Your task to perform on an android device: Search for hotels in Seattle Image 0: 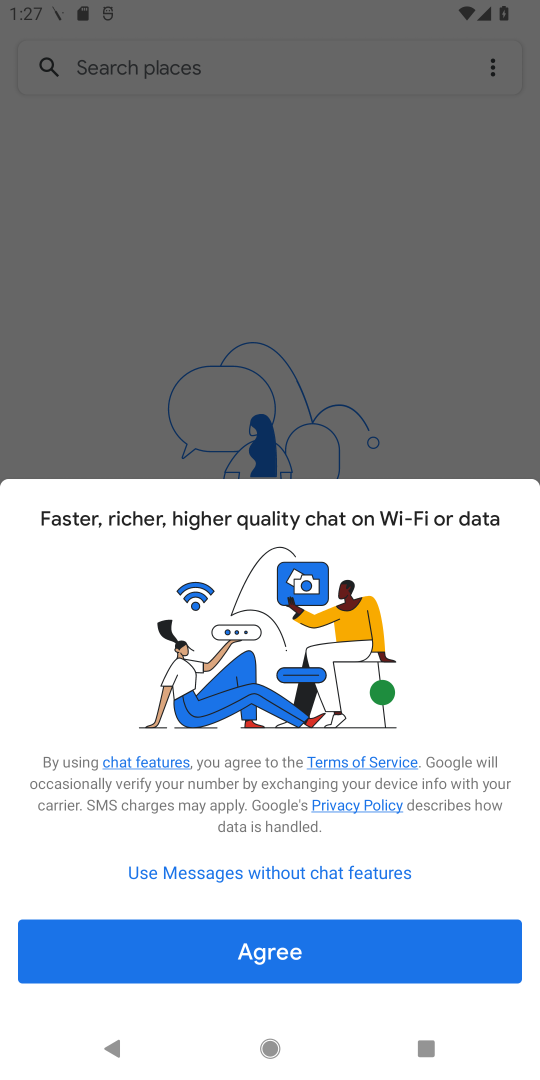
Step 0: press home button
Your task to perform on an android device: Search for hotels in Seattle Image 1: 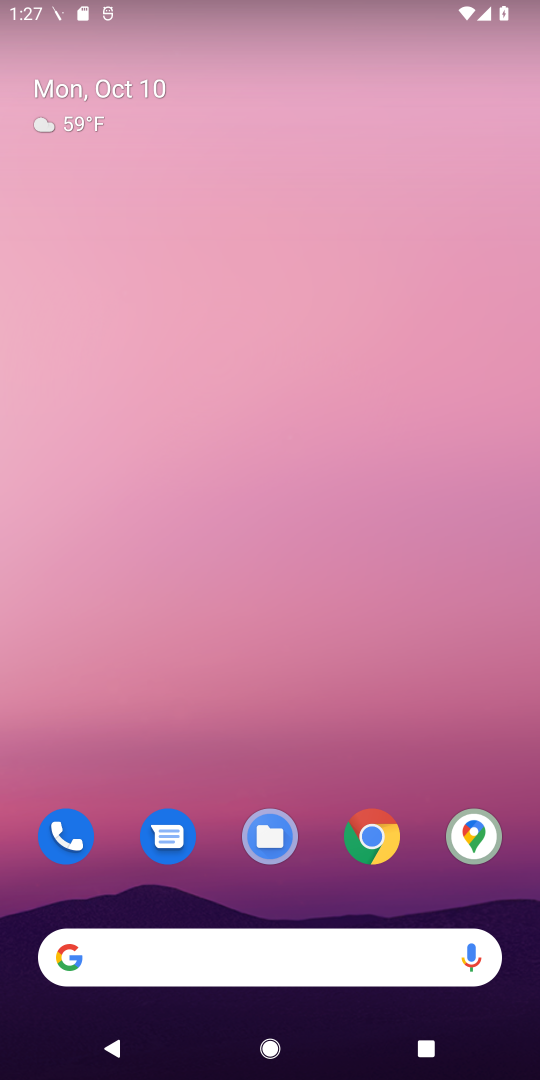
Step 1: click (358, 828)
Your task to perform on an android device: Search for hotels in Seattle Image 2: 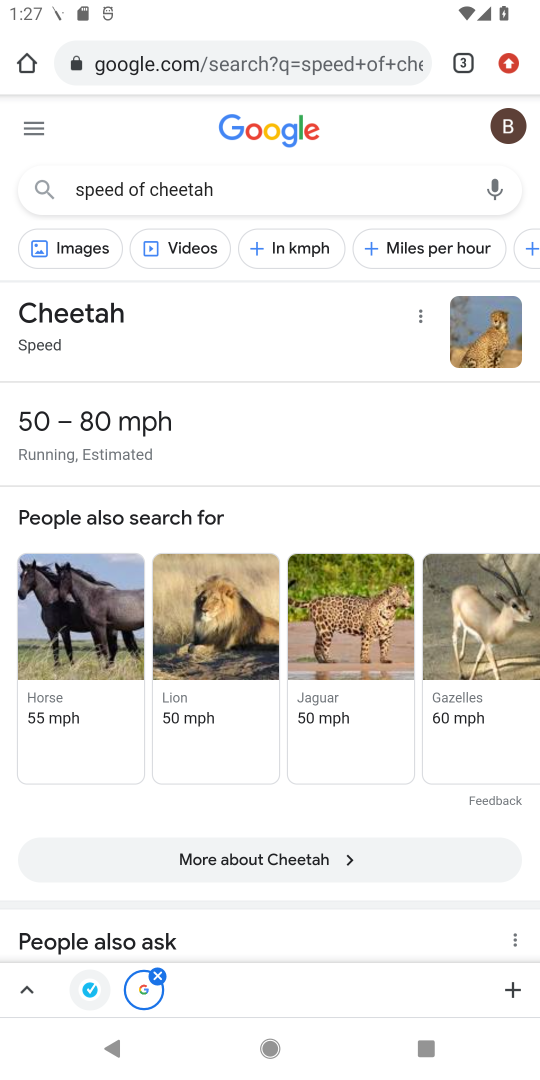
Step 2: click (331, 65)
Your task to perform on an android device: Search for hotels in Seattle Image 3: 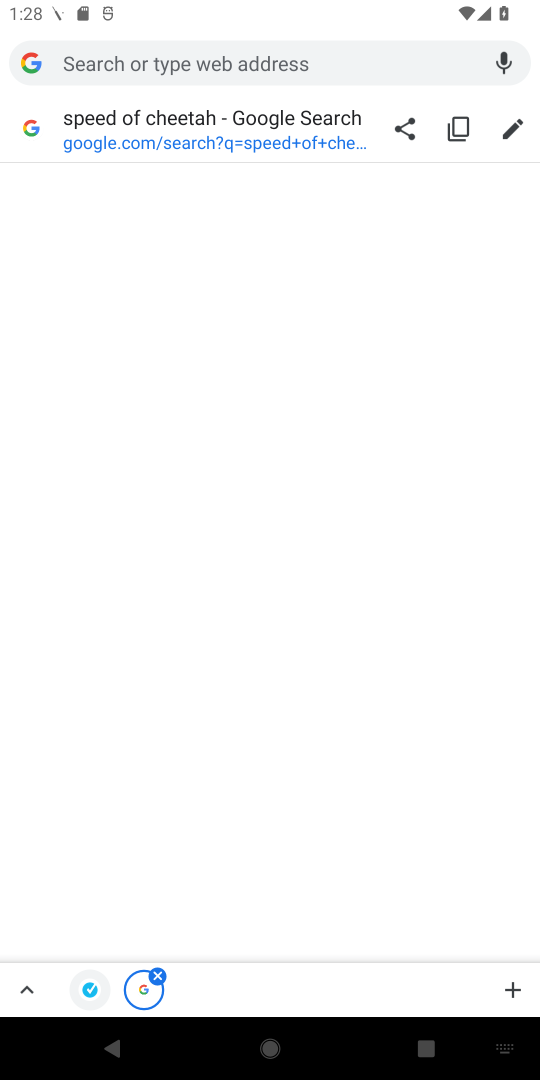
Step 3: type "hotels in seattle"
Your task to perform on an android device: Search for hotels in Seattle Image 4: 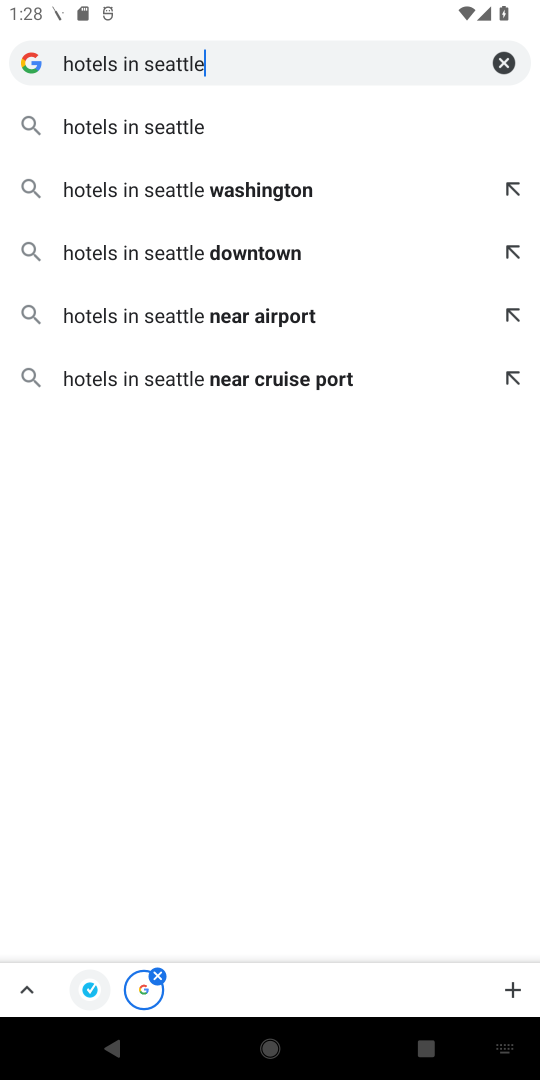
Step 4: click (227, 117)
Your task to perform on an android device: Search for hotels in Seattle Image 5: 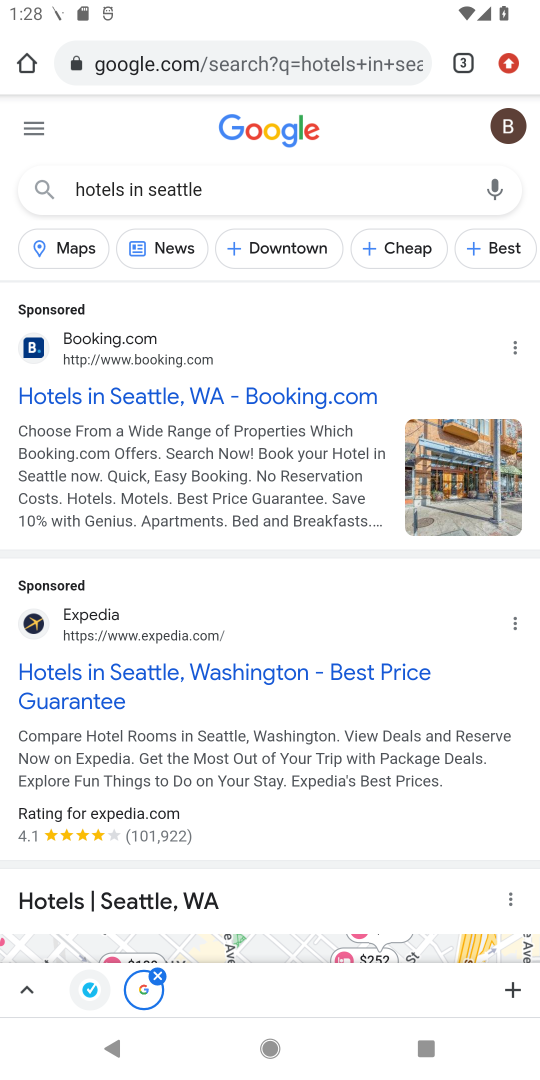
Step 5: click (245, 395)
Your task to perform on an android device: Search for hotels in Seattle Image 6: 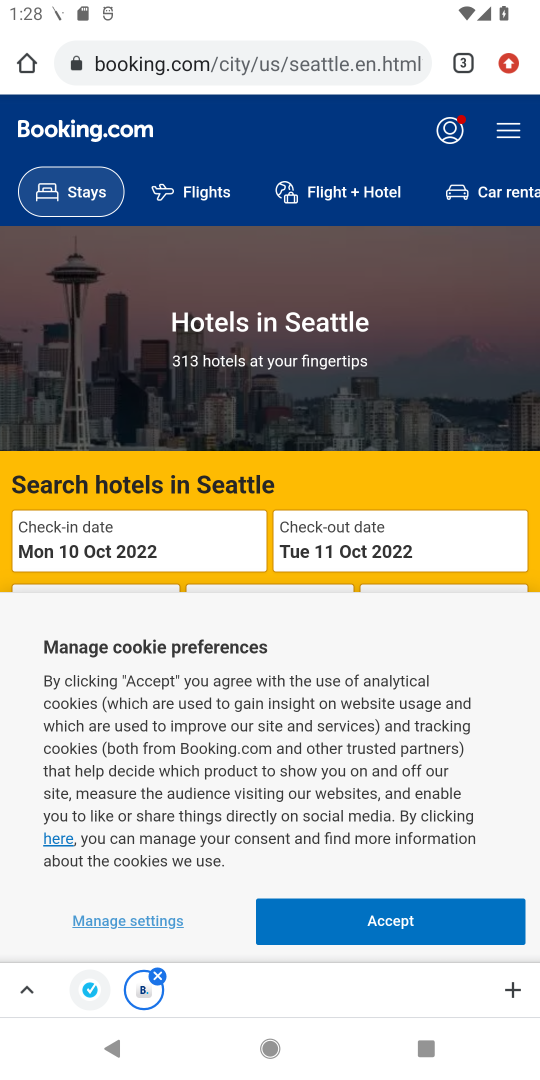
Step 6: drag from (453, 781) to (422, 616)
Your task to perform on an android device: Search for hotels in Seattle Image 7: 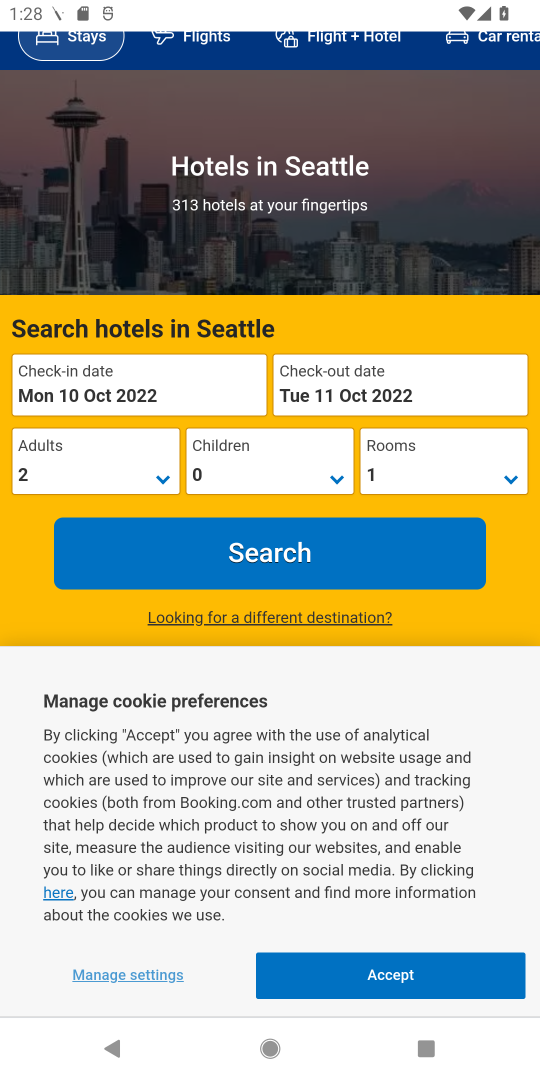
Step 7: click (468, 968)
Your task to perform on an android device: Search for hotels in Seattle Image 8: 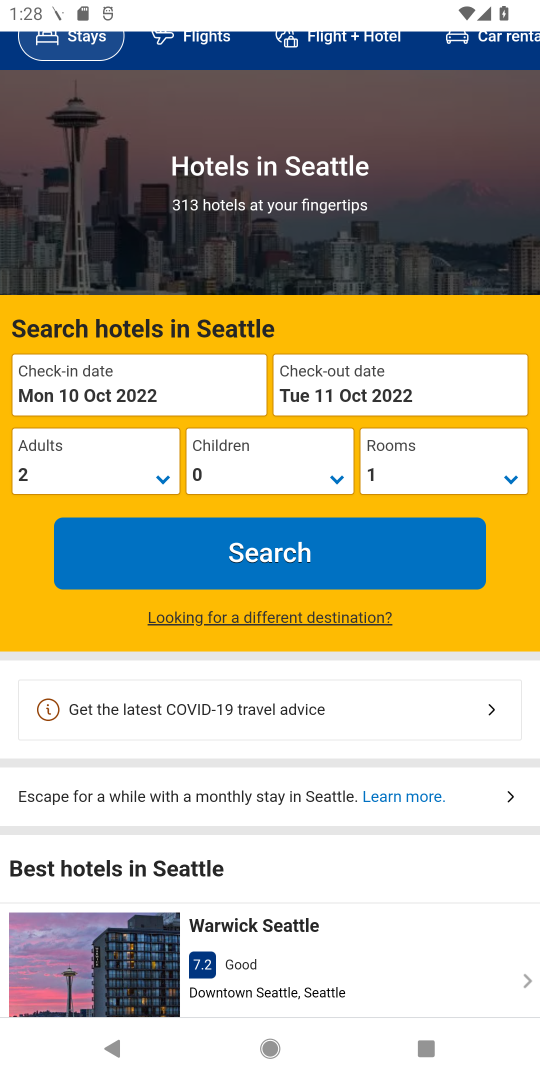
Step 8: task complete